Your task to perform on an android device: Is it going to rain this weekend? Image 0: 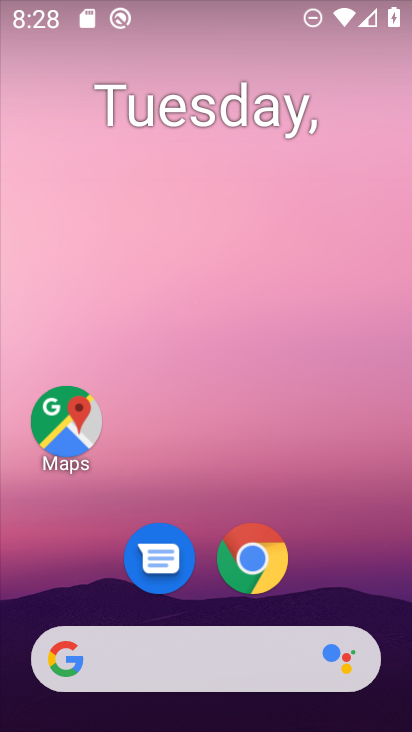
Step 0: drag from (207, 595) to (222, 137)
Your task to perform on an android device: Is it going to rain this weekend? Image 1: 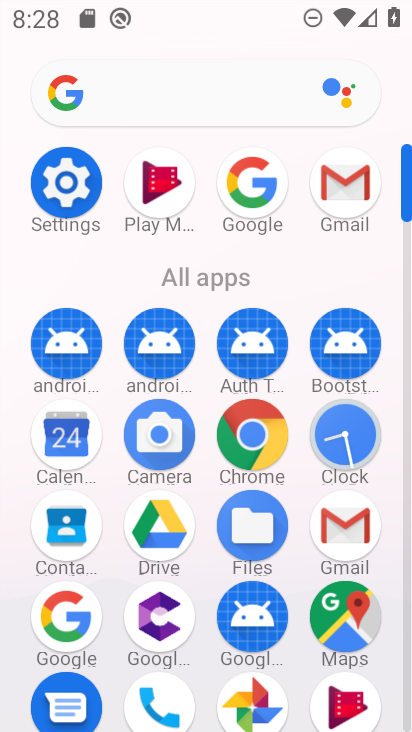
Step 1: click (74, 606)
Your task to perform on an android device: Is it going to rain this weekend? Image 2: 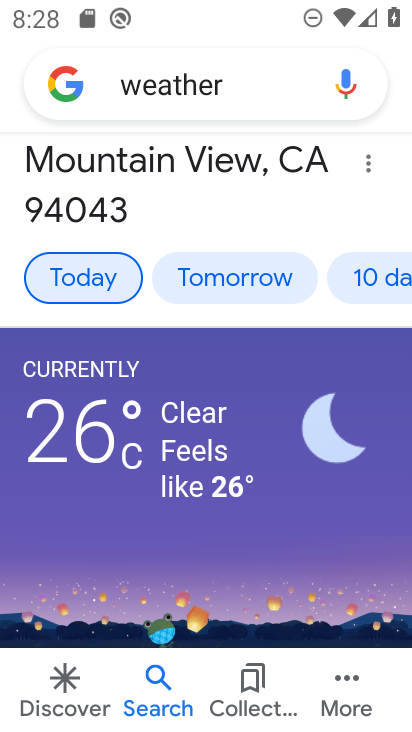
Step 2: click (359, 290)
Your task to perform on an android device: Is it going to rain this weekend? Image 3: 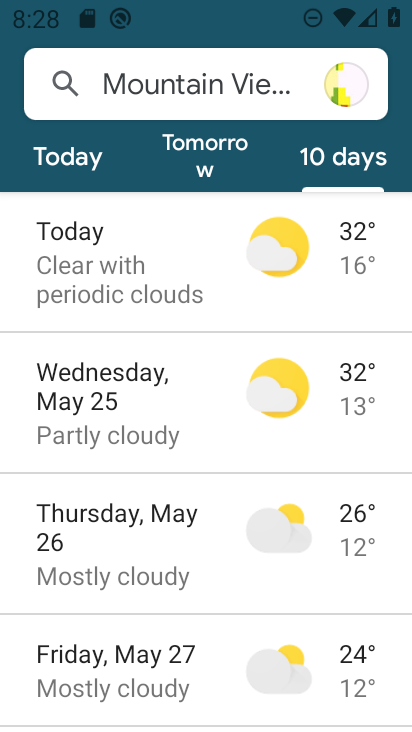
Step 3: task complete